Your task to perform on an android device: Search for seafood restaurants on Google Maps Image 0: 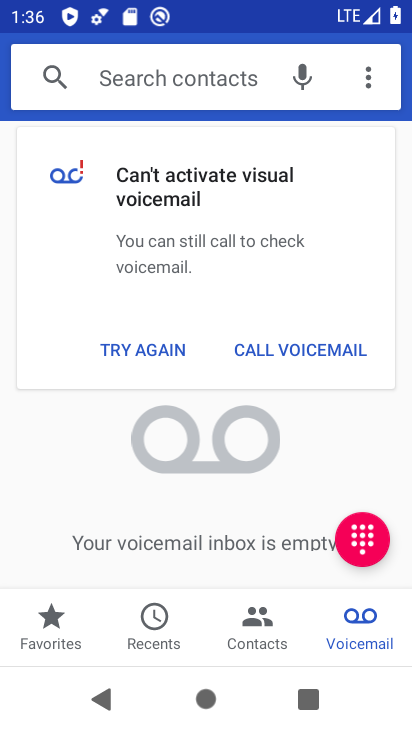
Step 0: press home button
Your task to perform on an android device: Search for seafood restaurants on Google Maps Image 1: 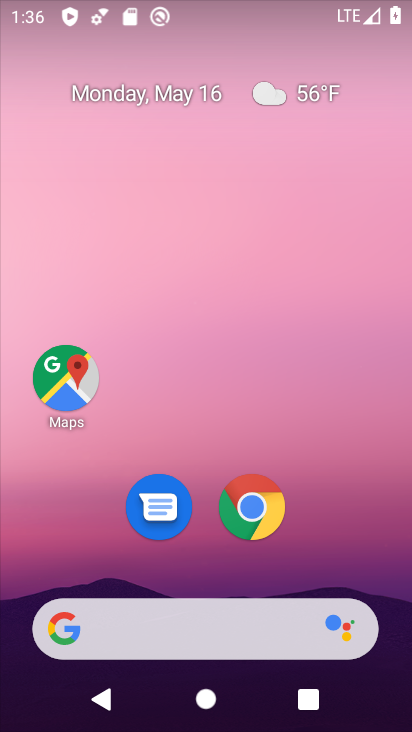
Step 1: click (78, 384)
Your task to perform on an android device: Search for seafood restaurants on Google Maps Image 2: 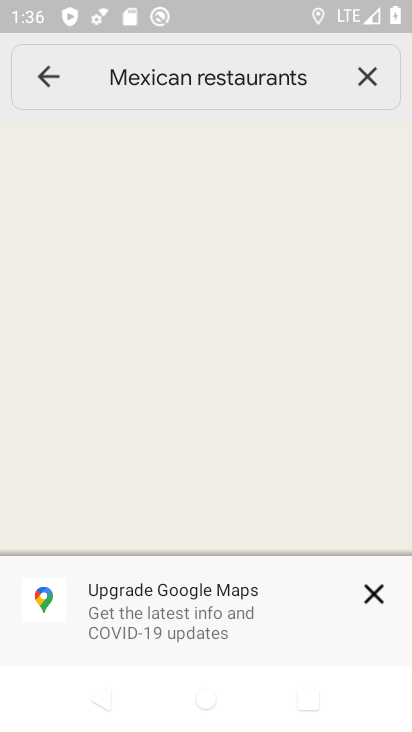
Step 2: click (361, 80)
Your task to perform on an android device: Search for seafood restaurants on Google Maps Image 3: 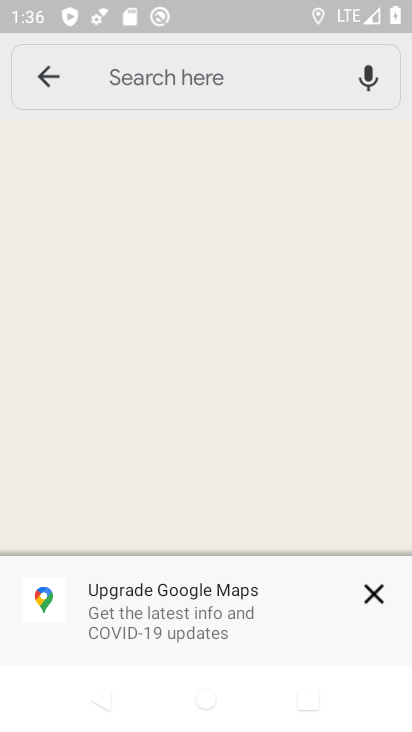
Step 3: click (221, 71)
Your task to perform on an android device: Search for seafood restaurants on Google Maps Image 4: 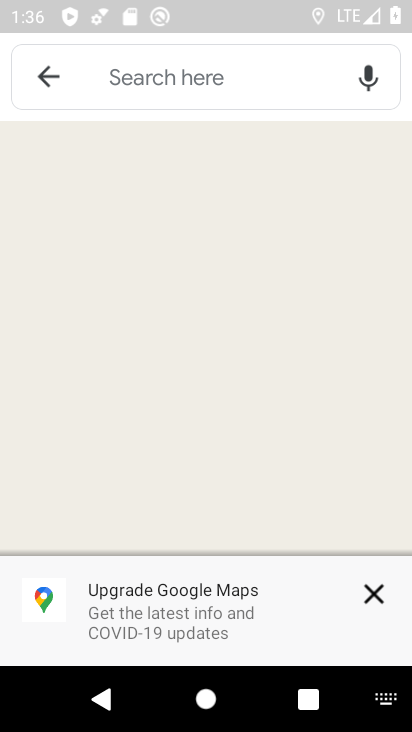
Step 4: type "seafood restaurants"
Your task to perform on an android device: Search for seafood restaurants on Google Maps Image 5: 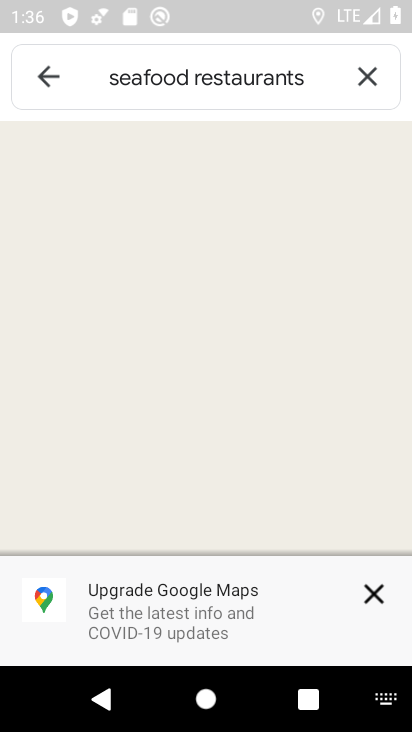
Step 5: task complete